Your task to perform on an android device: delete the emails in spam in the gmail app Image 0: 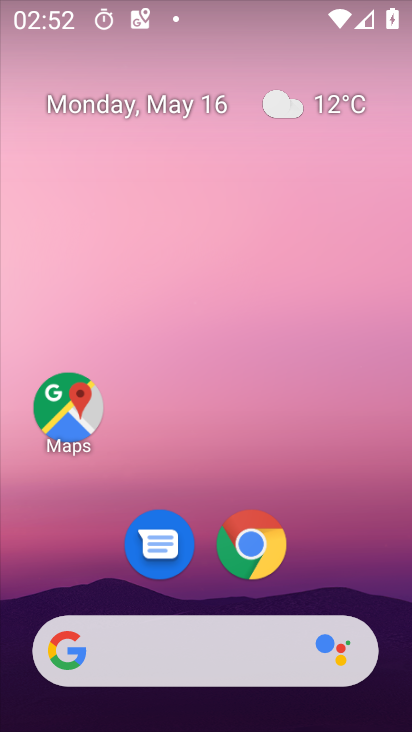
Step 0: drag from (219, 715) to (223, 170)
Your task to perform on an android device: delete the emails in spam in the gmail app Image 1: 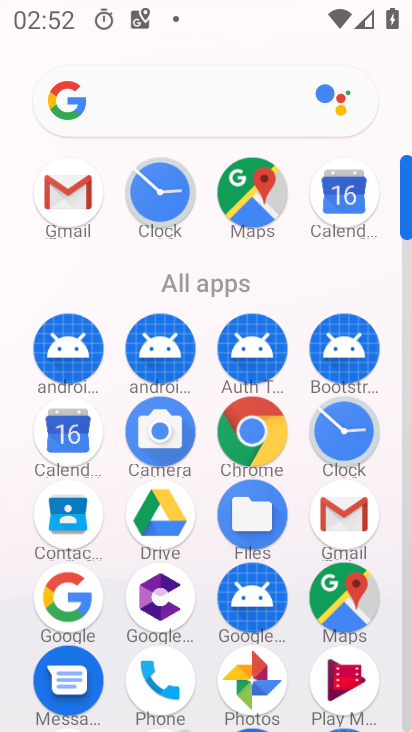
Step 1: click (351, 526)
Your task to perform on an android device: delete the emails in spam in the gmail app Image 2: 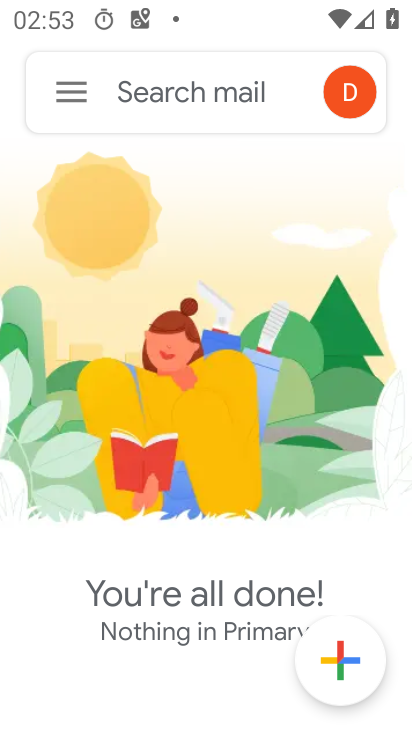
Step 2: task complete